Your task to perform on an android device: move an email to a new category in the gmail app Image 0: 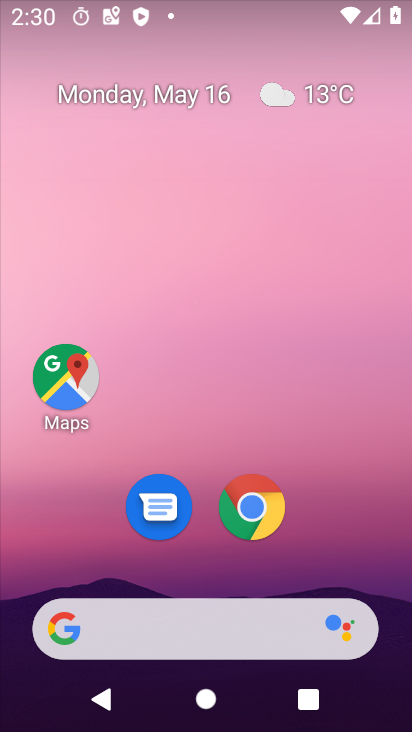
Step 0: drag from (342, 550) to (371, 140)
Your task to perform on an android device: move an email to a new category in the gmail app Image 1: 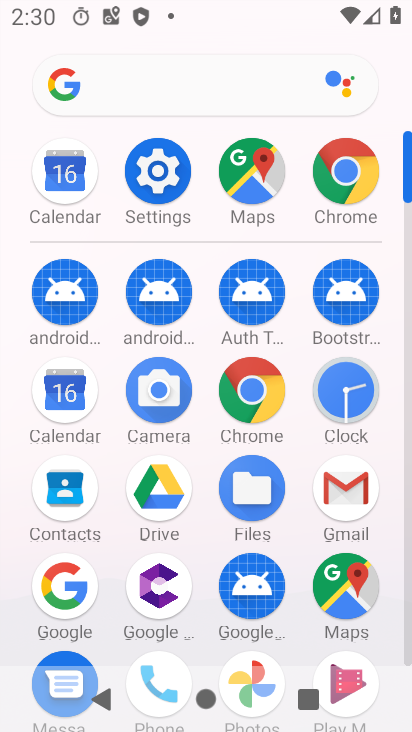
Step 1: click (365, 491)
Your task to perform on an android device: move an email to a new category in the gmail app Image 2: 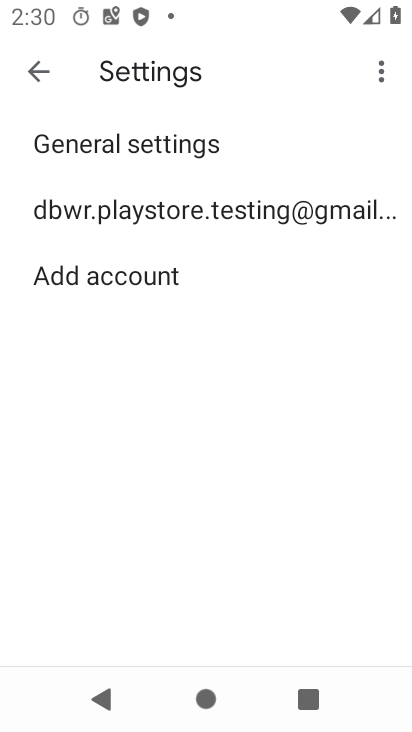
Step 2: click (44, 69)
Your task to perform on an android device: move an email to a new category in the gmail app Image 3: 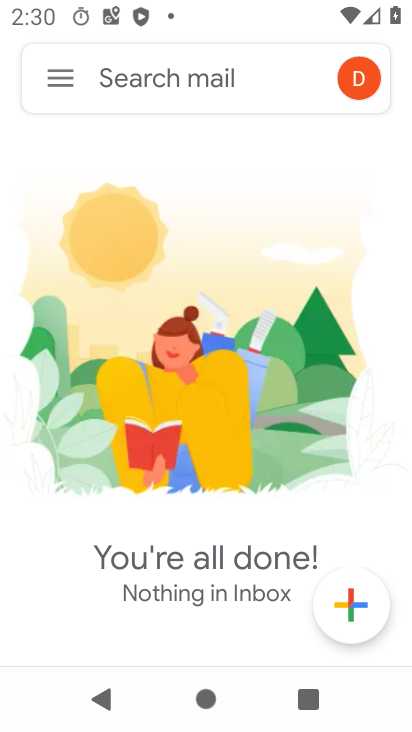
Step 3: click (66, 75)
Your task to perform on an android device: move an email to a new category in the gmail app Image 4: 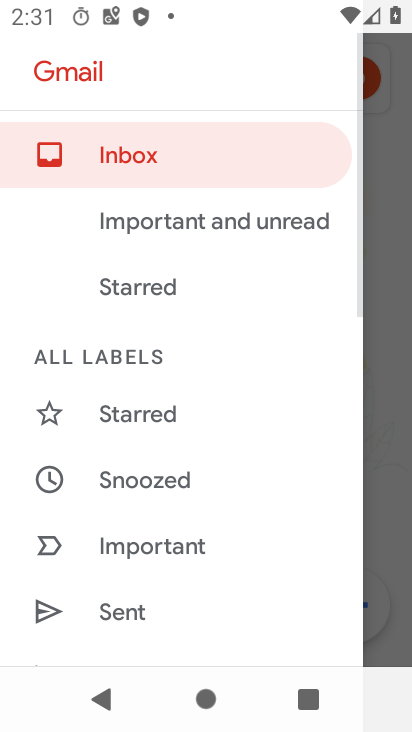
Step 4: drag from (274, 530) to (279, 346)
Your task to perform on an android device: move an email to a new category in the gmail app Image 5: 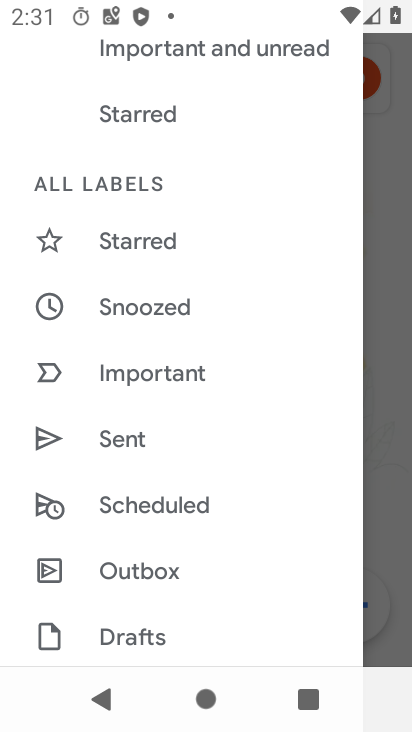
Step 5: drag from (274, 588) to (278, 402)
Your task to perform on an android device: move an email to a new category in the gmail app Image 6: 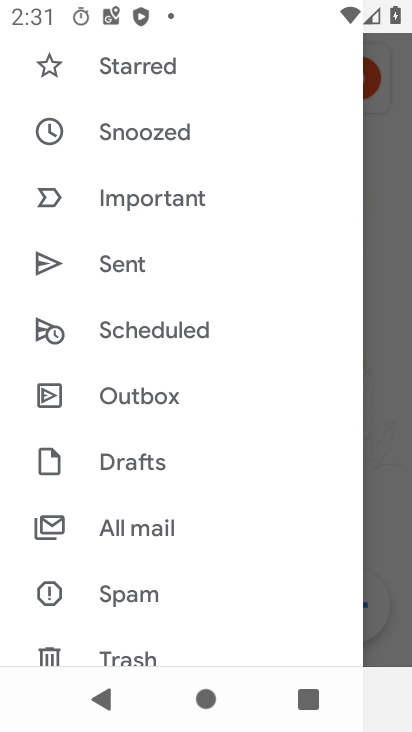
Step 6: drag from (259, 614) to (274, 422)
Your task to perform on an android device: move an email to a new category in the gmail app Image 7: 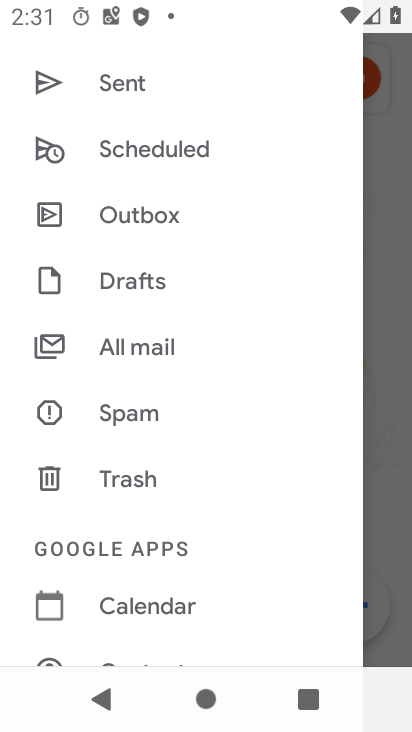
Step 7: drag from (278, 251) to (272, 468)
Your task to perform on an android device: move an email to a new category in the gmail app Image 8: 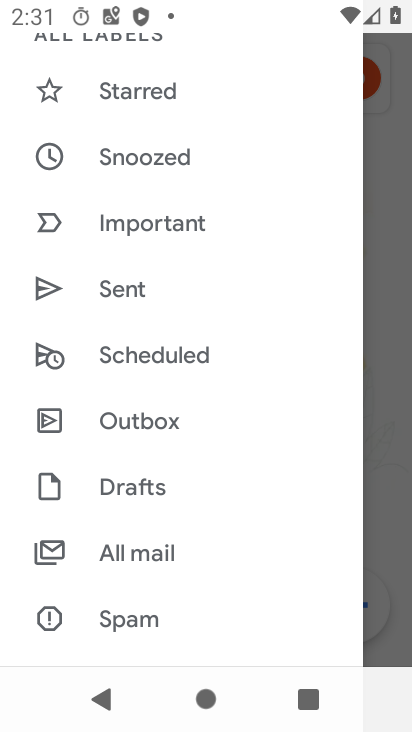
Step 8: drag from (287, 180) to (280, 432)
Your task to perform on an android device: move an email to a new category in the gmail app Image 9: 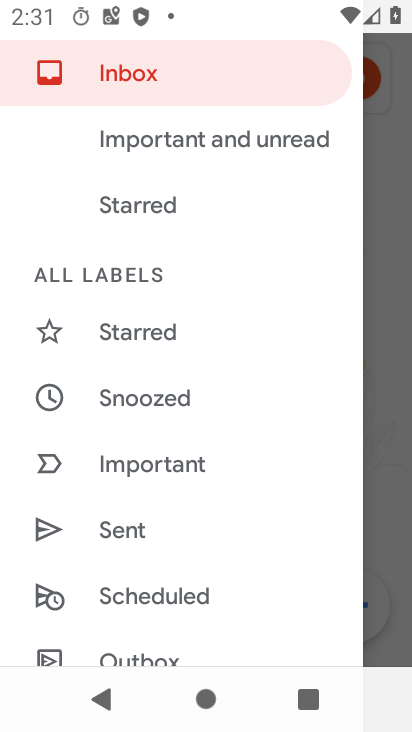
Step 9: drag from (262, 306) to (257, 418)
Your task to perform on an android device: move an email to a new category in the gmail app Image 10: 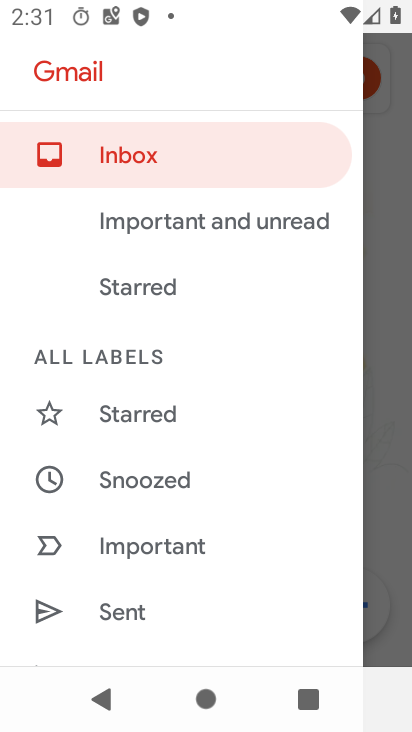
Step 10: click (153, 161)
Your task to perform on an android device: move an email to a new category in the gmail app Image 11: 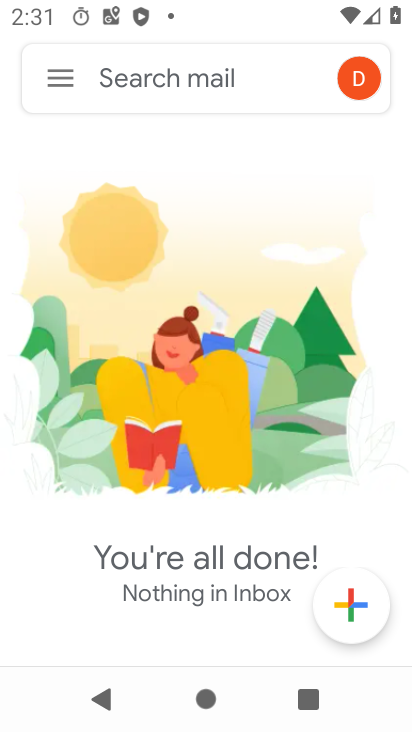
Step 11: task complete